Your task to perform on an android device: turn on improve location accuracy Image 0: 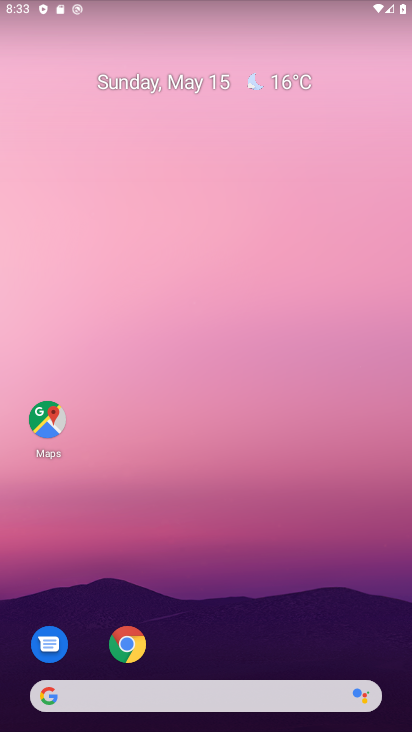
Step 0: drag from (246, 302) to (279, 88)
Your task to perform on an android device: turn on improve location accuracy Image 1: 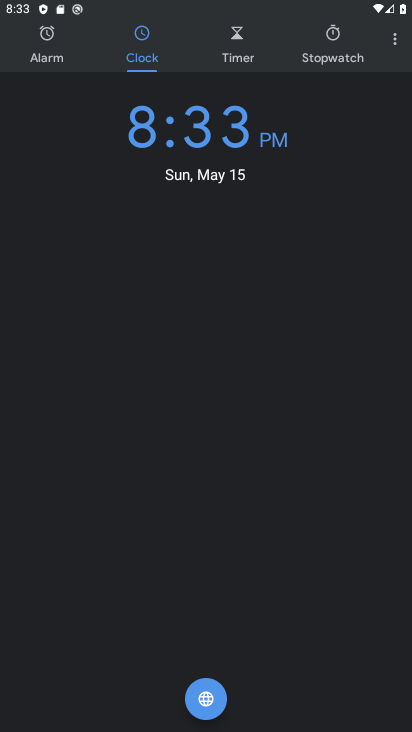
Step 1: press back button
Your task to perform on an android device: turn on improve location accuracy Image 2: 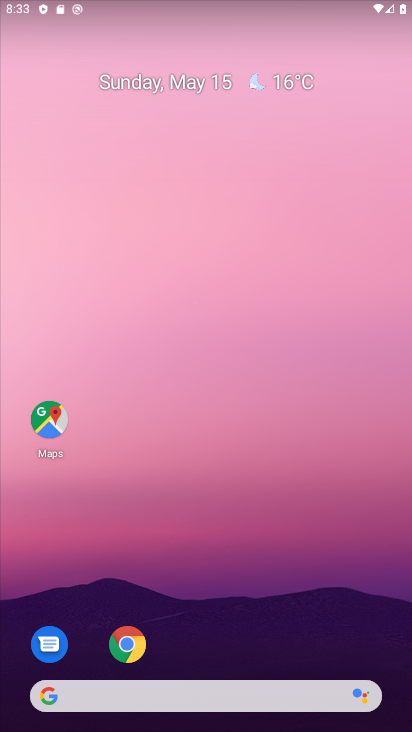
Step 2: drag from (226, 644) to (296, 61)
Your task to perform on an android device: turn on improve location accuracy Image 3: 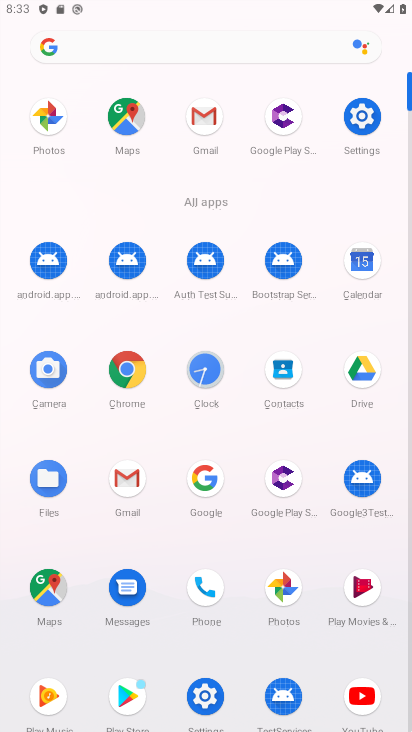
Step 3: click (352, 115)
Your task to perform on an android device: turn on improve location accuracy Image 4: 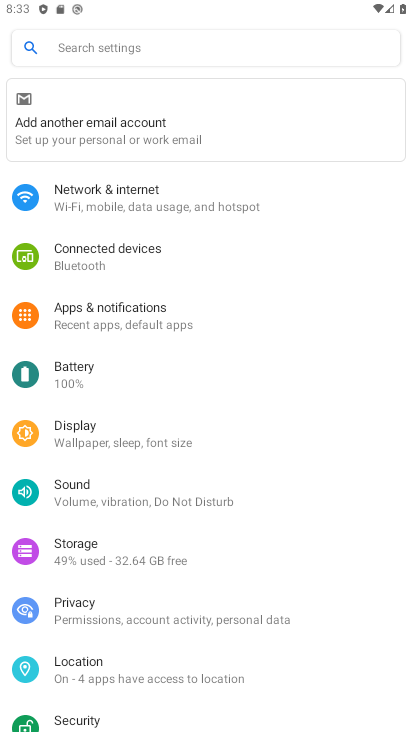
Step 4: click (113, 671)
Your task to perform on an android device: turn on improve location accuracy Image 5: 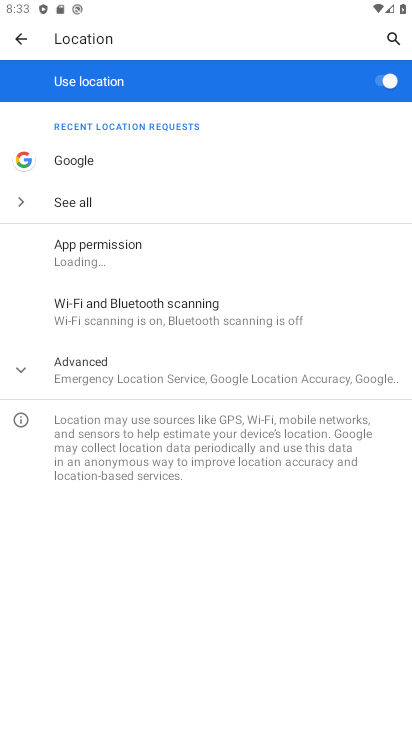
Step 5: click (139, 374)
Your task to perform on an android device: turn on improve location accuracy Image 6: 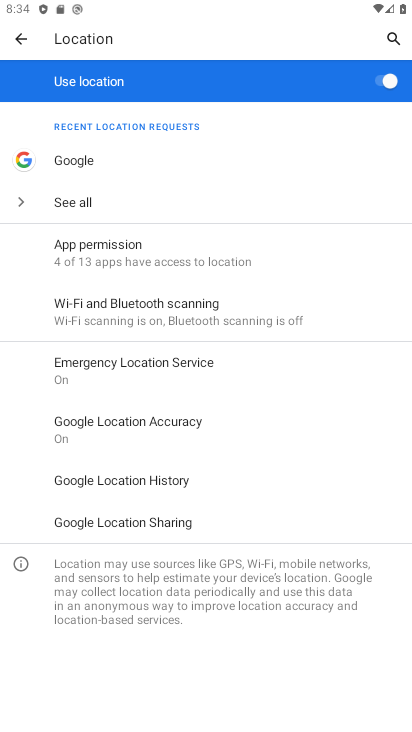
Step 6: click (140, 420)
Your task to perform on an android device: turn on improve location accuracy Image 7: 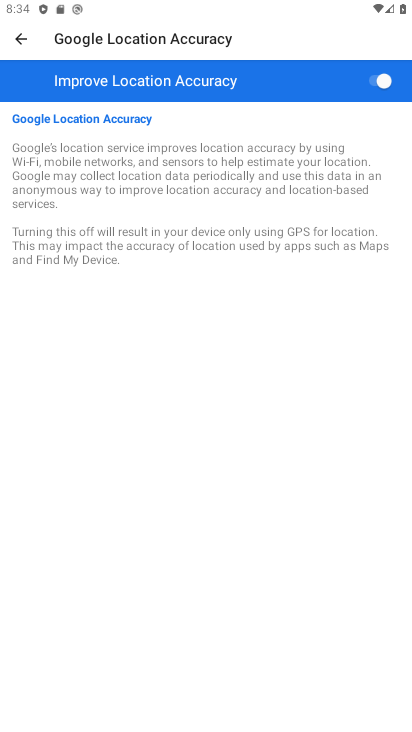
Step 7: task complete